Your task to perform on an android device: Open the web browser Image 0: 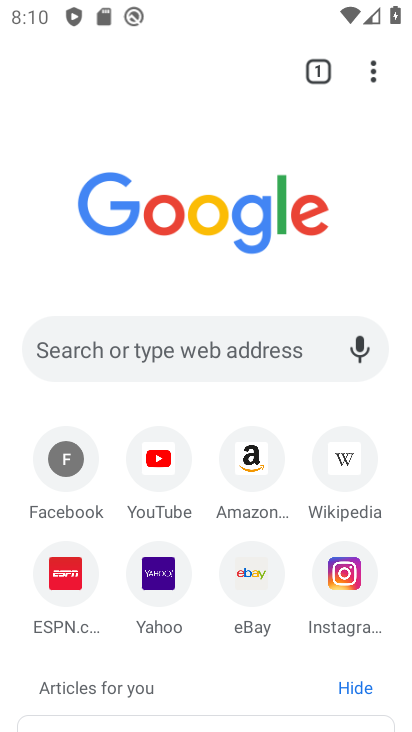
Step 0: press home button
Your task to perform on an android device: Open the web browser Image 1: 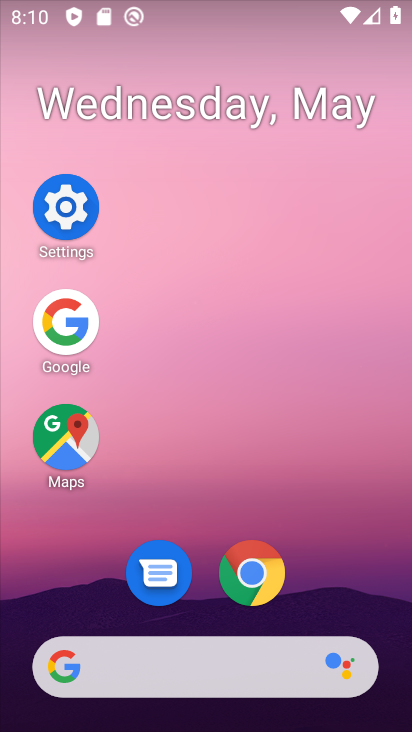
Step 1: click (258, 573)
Your task to perform on an android device: Open the web browser Image 2: 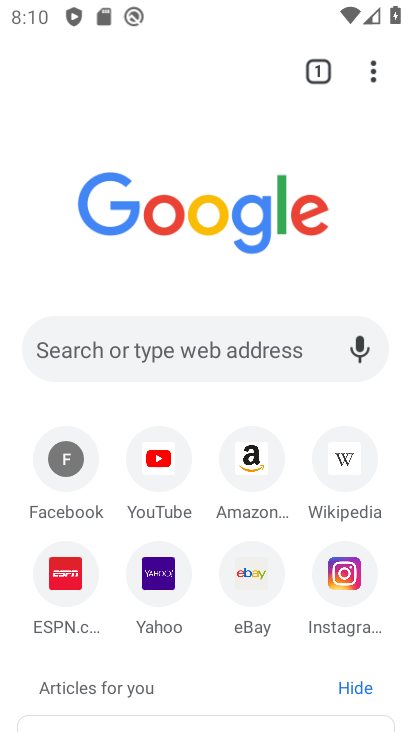
Step 2: task complete